Your task to perform on an android device: What's on my calendar tomorrow? Image 0: 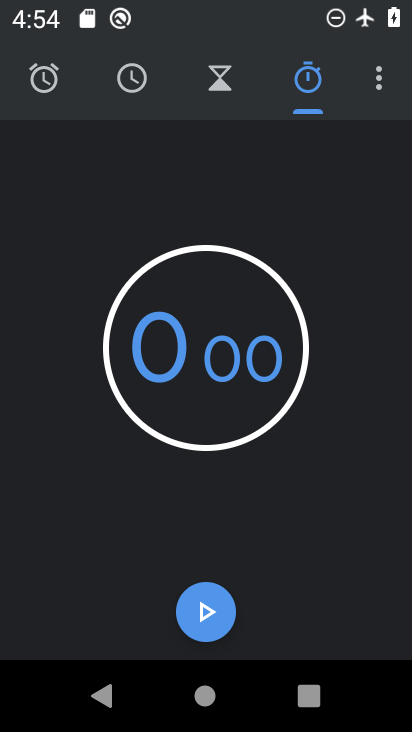
Step 0: press home button
Your task to perform on an android device: What's on my calendar tomorrow? Image 1: 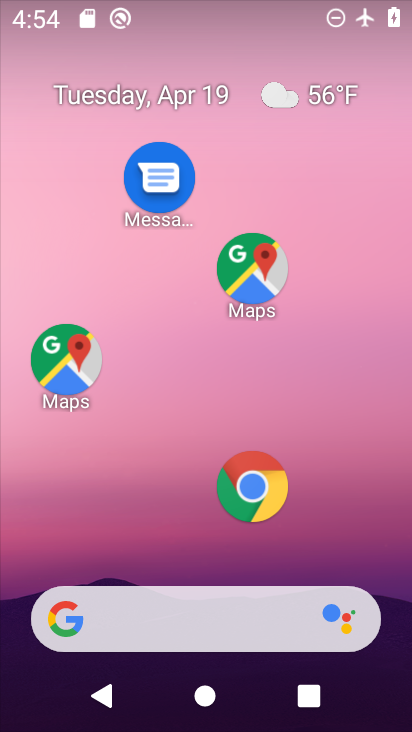
Step 1: drag from (244, 568) to (344, 117)
Your task to perform on an android device: What's on my calendar tomorrow? Image 2: 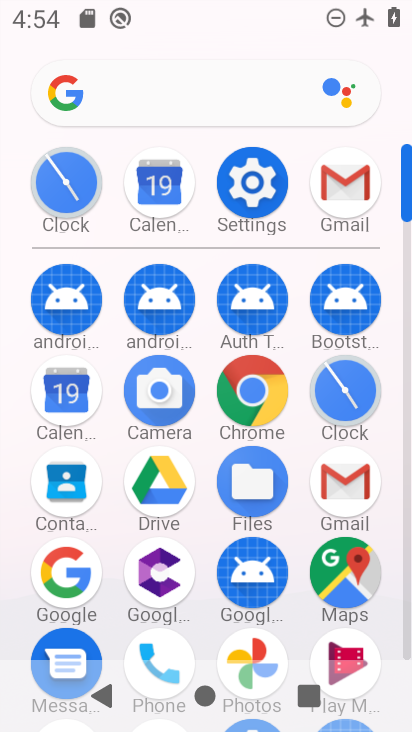
Step 2: click (80, 395)
Your task to perform on an android device: What's on my calendar tomorrow? Image 3: 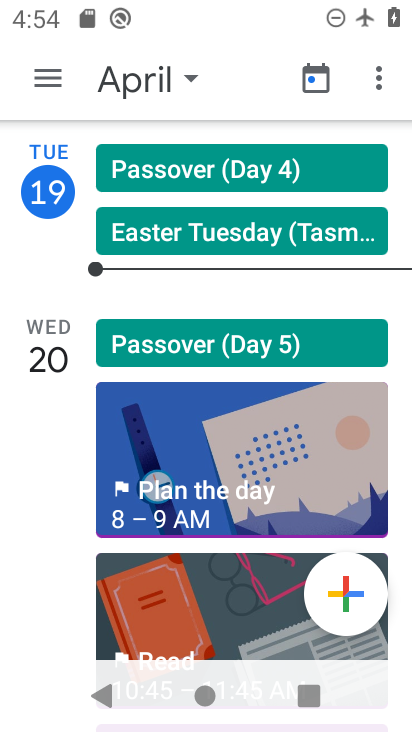
Step 3: task complete